Your task to perform on an android device: Go to battery settings Image 0: 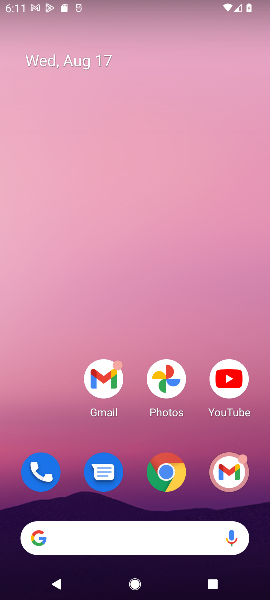
Step 0: drag from (58, 347) to (155, 0)
Your task to perform on an android device: Go to battery settings Image 1: 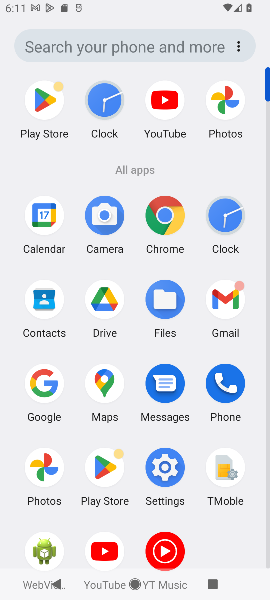
Step 1: click (162, 463)
Your task to perform on an android device: Go to battery settings Image 2: 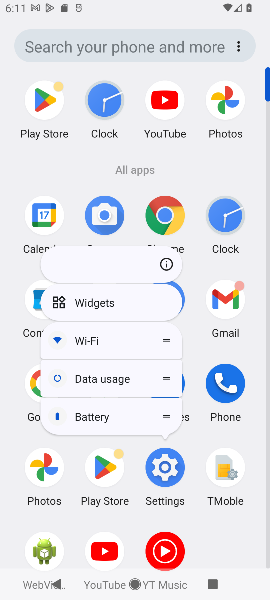
Step 2: click (162, 463)
Your task to perform on an android device: Go to battery settings Image 3: 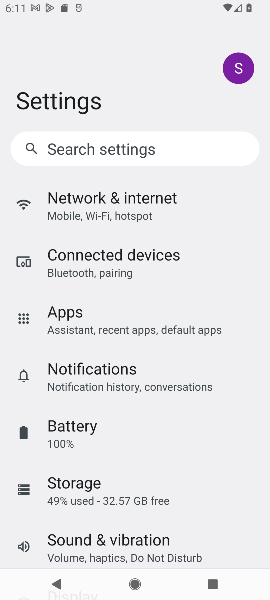
Step 3: drag from (136, 494) to (170, 63)
Your task to perform on an android device: Go to battery settings Image 4: 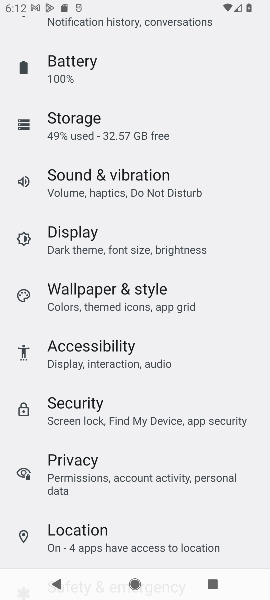
Step 4: click (105, 66)
Your task to perform on an android device: Go to battery settings Image 5: 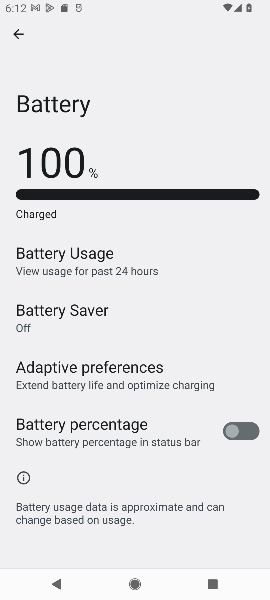
Step 5: task complete